Your task to perform on an android device: Go to CNN.com Image 0: 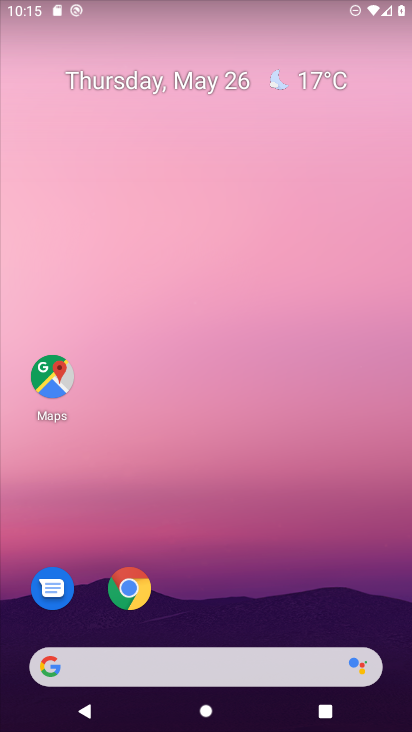
Step 0: click (129, 589)
Your task to perform on an android device: Go to CNN.com Image 1: 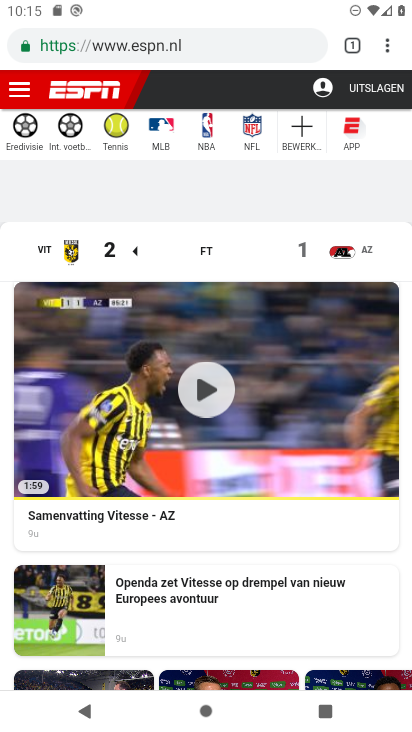
Step 1: click (198, 38)
Your task to perform on an android device: Go to CNN.com Image 2: 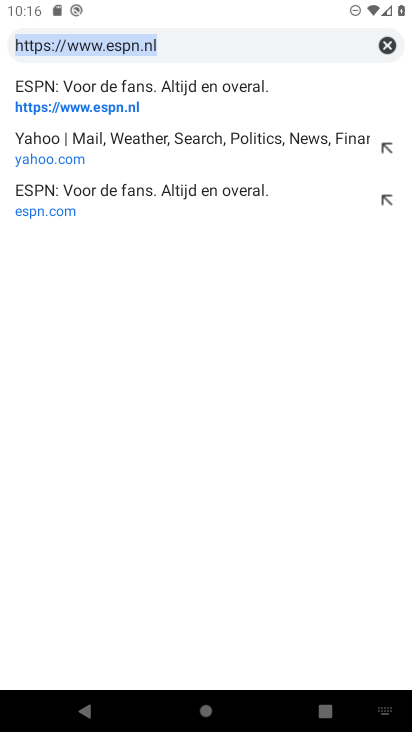
Step 2: click (383, 42)
Your task to perform on an android device: Go to CNN.com Image 3: 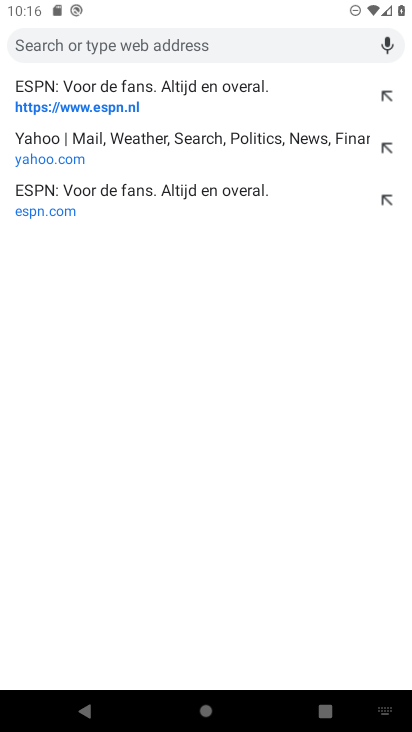
Step 3: type "cnn.com"
Your task to perform on an android device: Go to CNN.com Image 4: 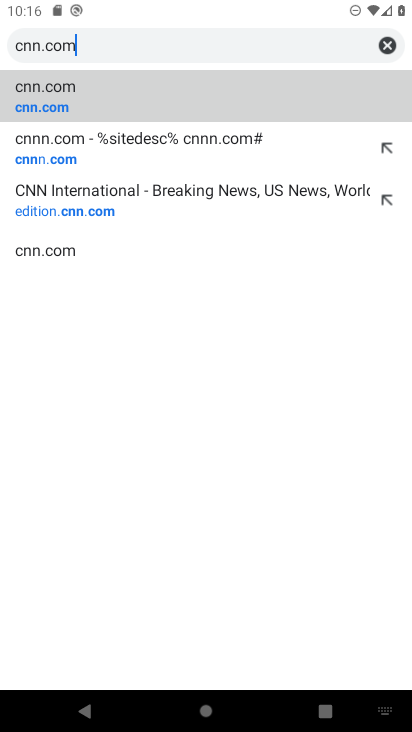
Step 4: click (99, 71)
Your task to perform on an android device: Go to CNN.com Image 5: 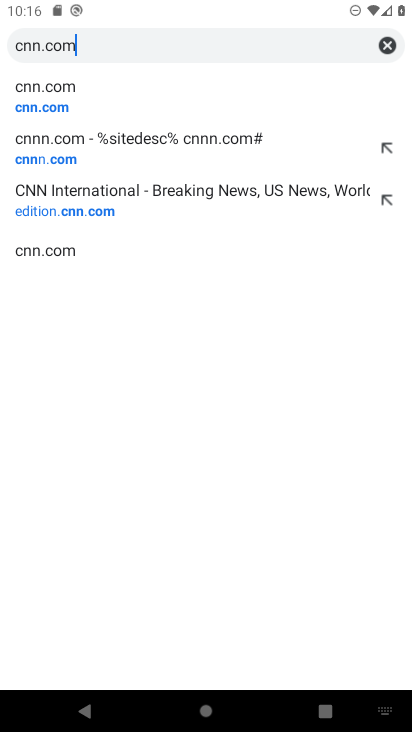
Step 5: click (58, 93)
Your task to perform on an android device: Go to CNN.com Image 6: 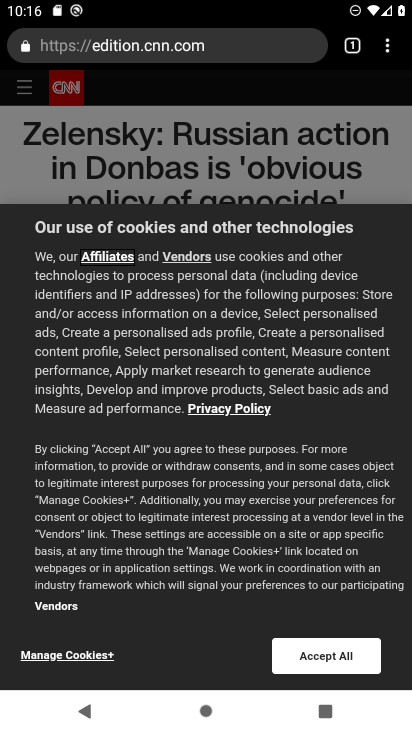
Step 6: drag from (274, 596) to (282, 217)
Your task to perform on an android device: Go to CNN.com Image 7: 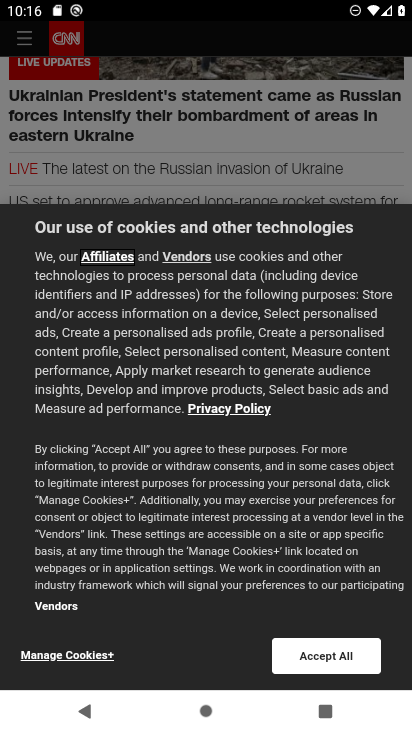
Step 7: drag from (300, 552) to (310, 249)
Your task to perform on an android device: Go to CNN.com Image 8: 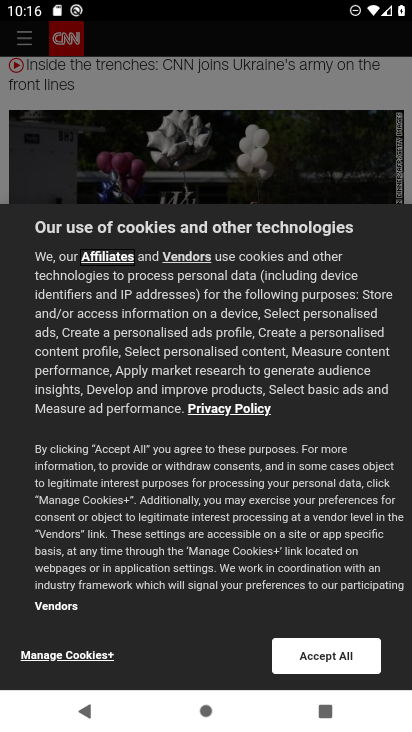
Step 8: click (326, 657)
Your task to perform on an android device: Go to CNN.com Image 9: 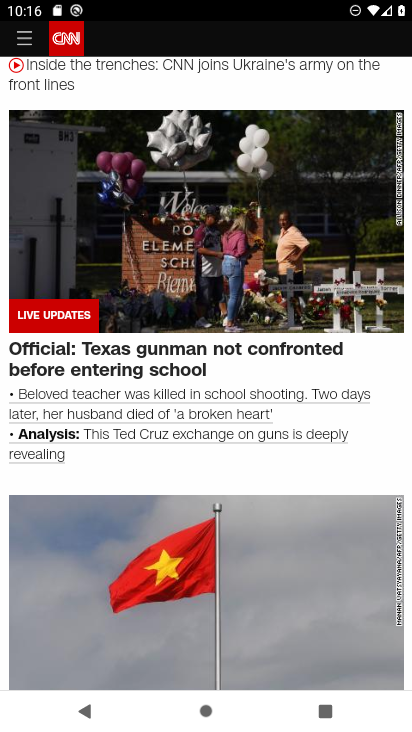
Step 9: task complete